Your task to perform on an android device: snooze an email in the gmail app Image 0: 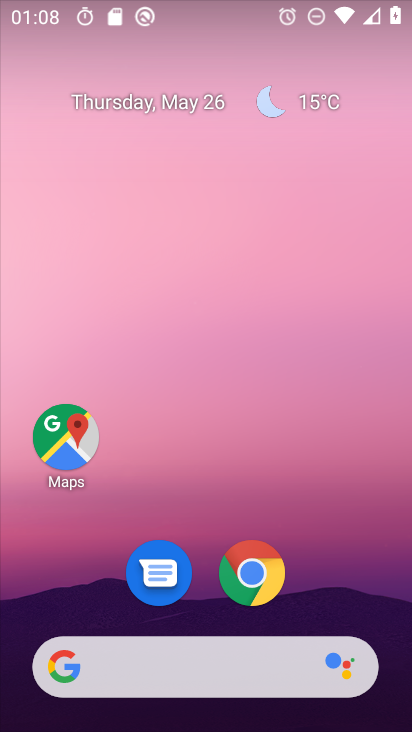
Step 0: drag from (350, 625) to (407, 22)
Your task to perform on an android device: snooze an email in the gmail app Image 1: 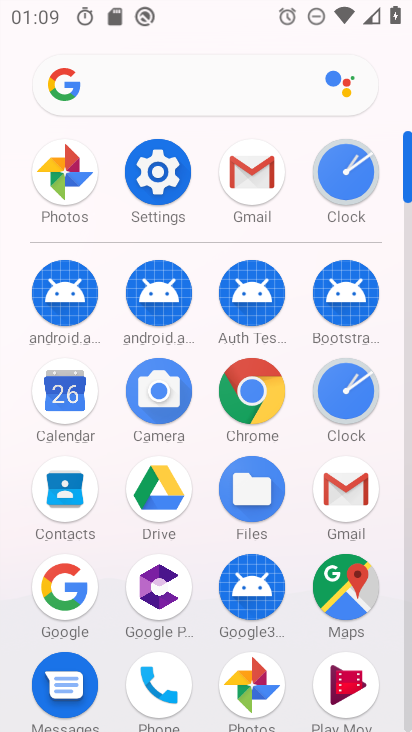
Step 1: click (253, 187)
Your task to perform on an android device: snooze an email in the gmail app Image 2: 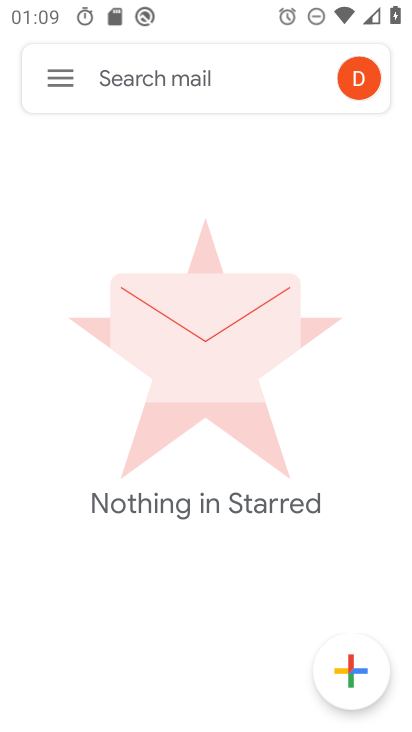
Step 2: click (62, 77)
Your task to perform on an android device: snooze an email in the gmail app Image 3: 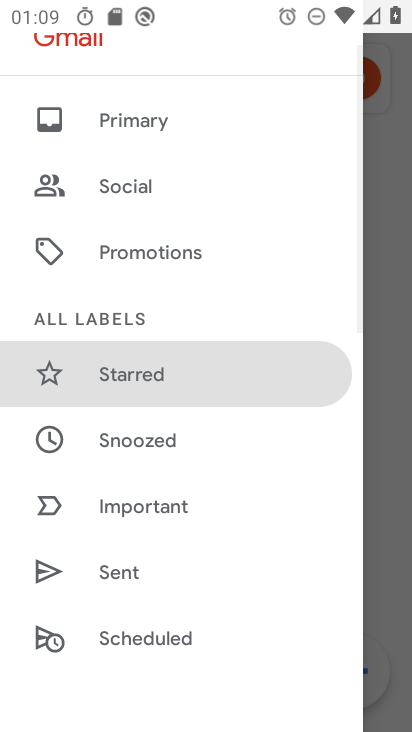
Step 3: drag from (257, 557) to (257, 241)
Your task to perform on an android device: snooze an email in the gmail app Image 4: 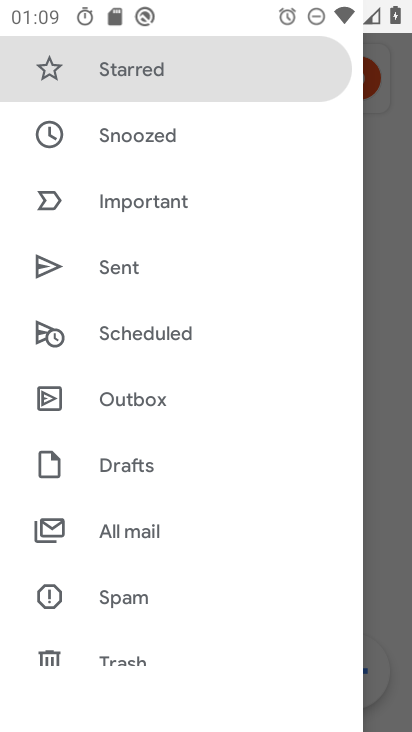
Step 4: click (136, 530)
Your task to perform on an android device: snooze an email in the gmail app Image 5: 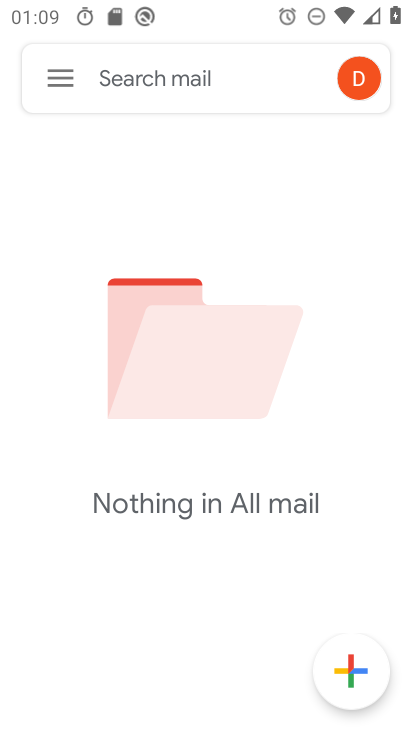
Step 5: task complete